Your task to perform on an android device: Go to Reddit.com Image 0: 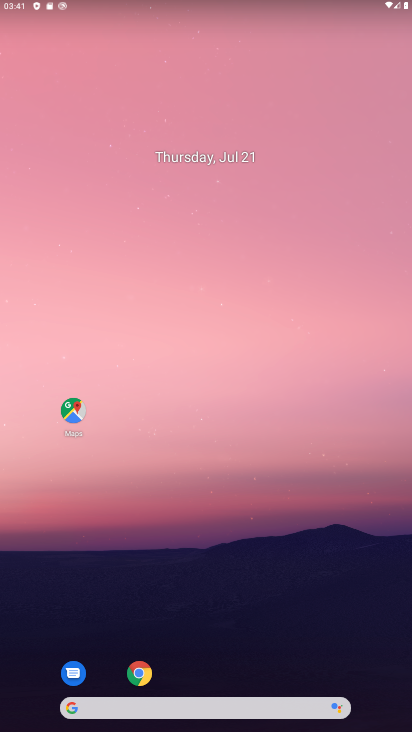
Step 0: drag from (358, 612) to (305, 88)
Your task to perform on an android device: Go to Reddit.com Image 1: 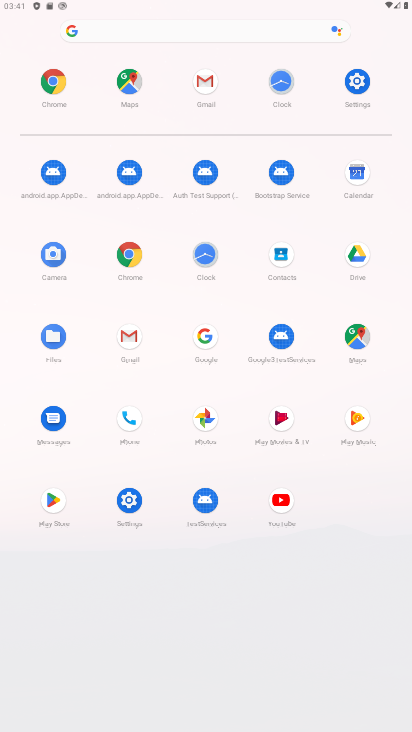
Step 1: click (120, 256)
Your task to perform on an android device: Go to Reddit.com Image 2: 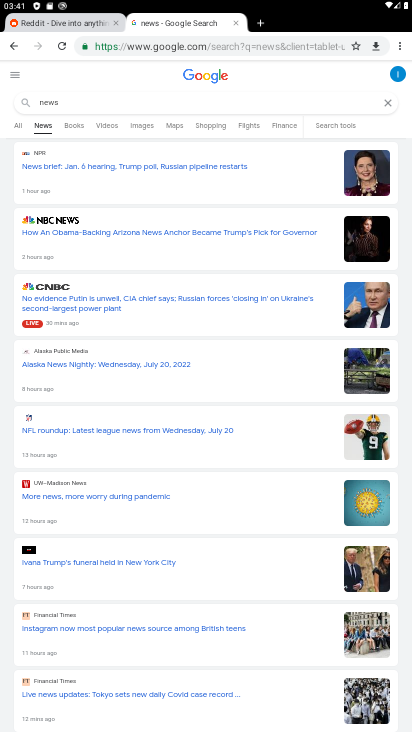
Step 2: click (134, 45)
Your task to perform on an android device: Go to Reddit.com Image 3: 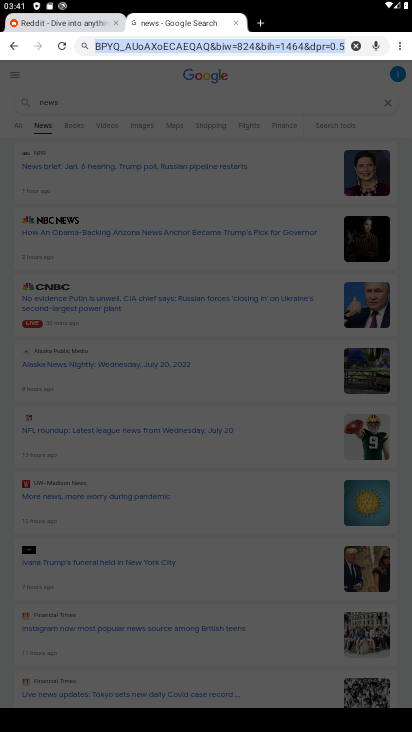
Step 3: type "reddit.com"
Your task to perform on an android device: Go to Reddit.com Image 4: 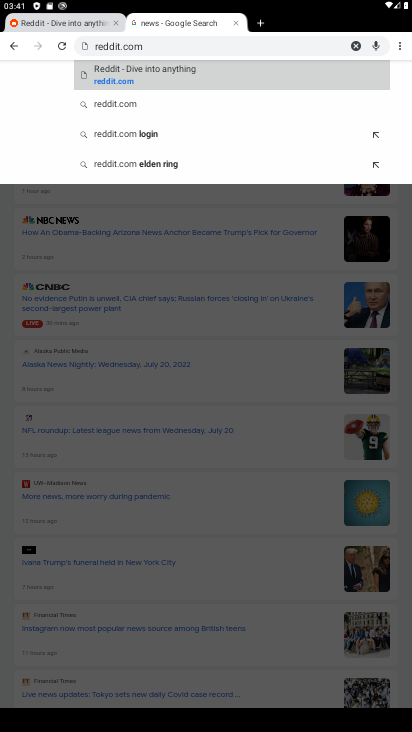
Step 4: click (114, 80)
Your task to perform on an android device: Go to Reddit.com Image 5: 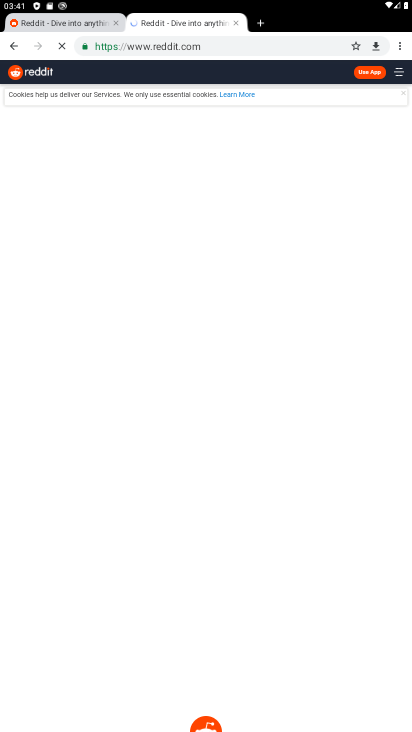
Step 5: task complete